Your task to perform on an android device: Go to Google maps Image 0: 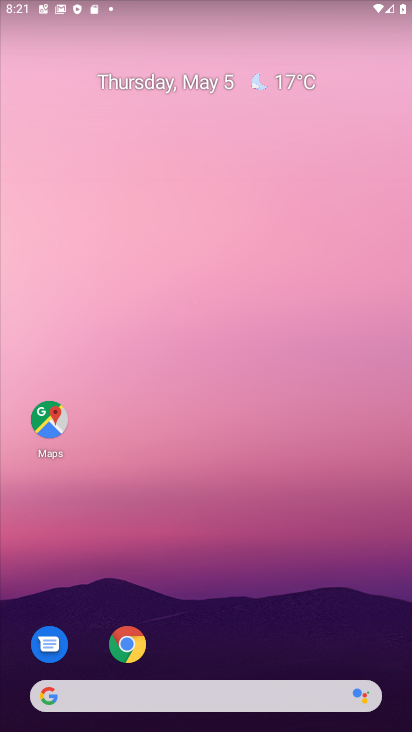
Step 0: click (60, 422)
Your task to perform on an android device: Go to Google maps Image 1: 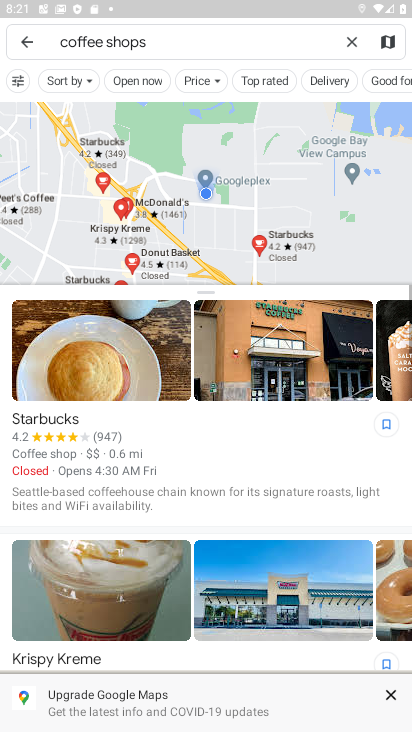
Step 1: task complete